Your task to perform on an android device: open app "Viber Messenger" Image 0: 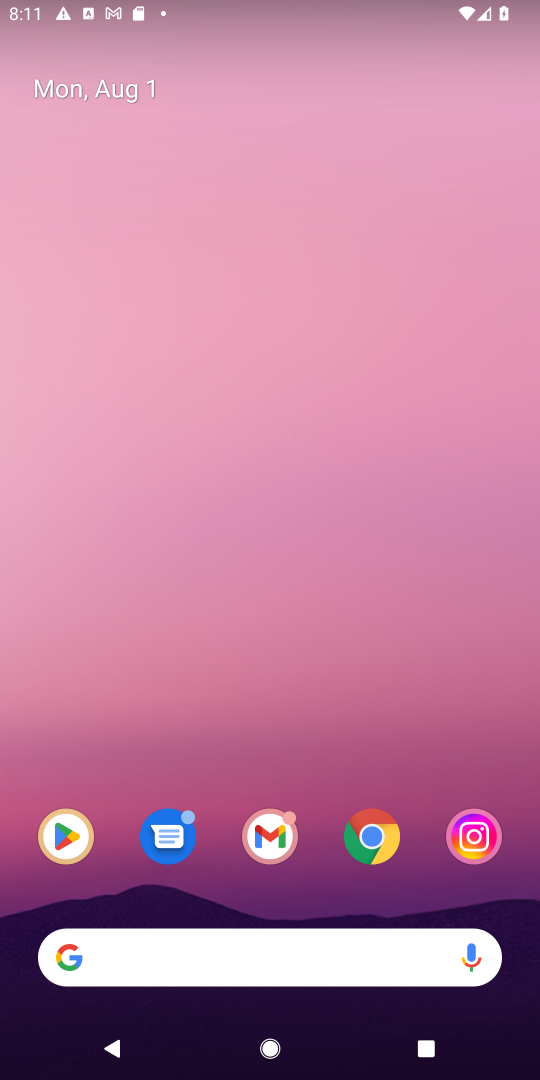
Step 0: press home button
Your task to perform on an android device: open app "Viber Messenger" Image 1: 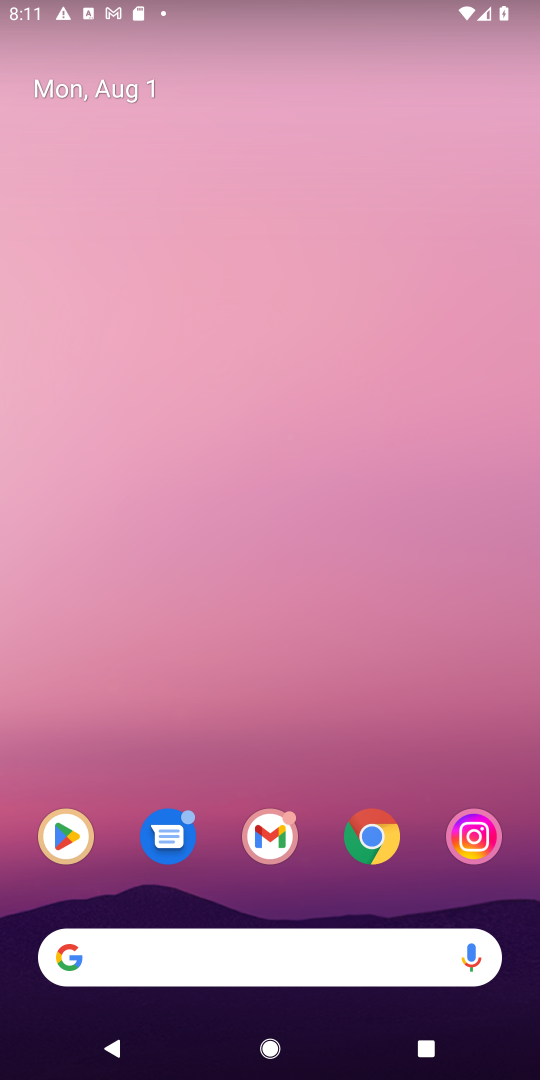
Step 1: click (61, 838)
Your task to perform on an android device: open app "Viber Messenger" Image 2: 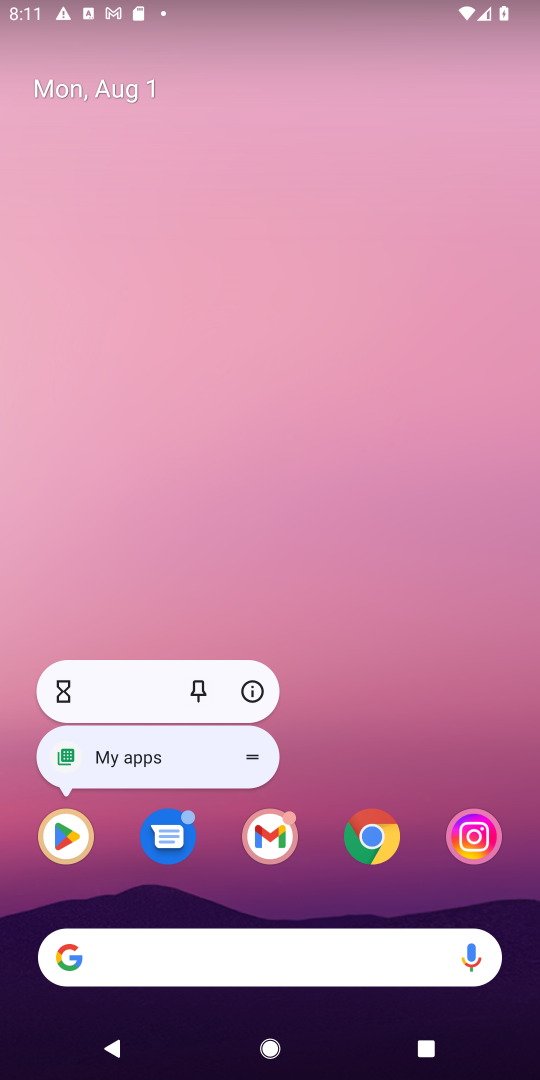
Step 2: click (62, 841)
Your task to perform on an android device: open app "Viber Messenger" Image 3: 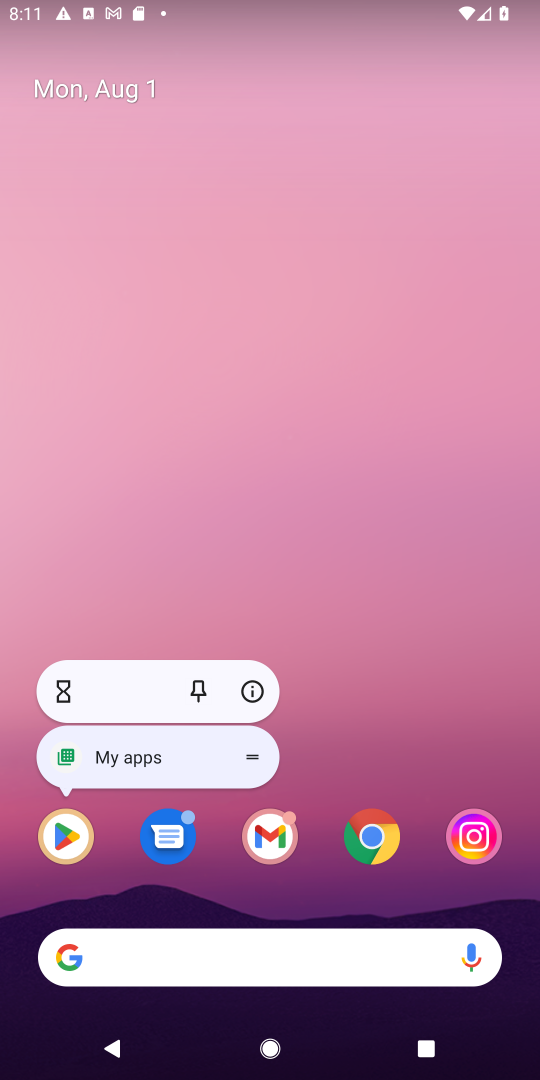
Step 3: click (62, 841)
Your task to perform on an android device: open app "Viber Messenger" Image 4: 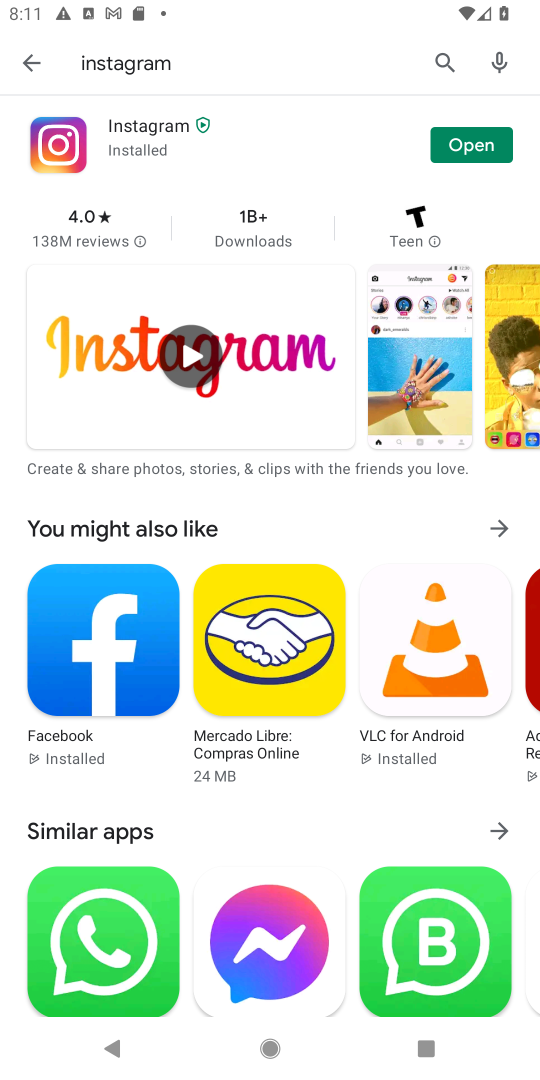
Step 4: click (440, 56)
Your task to perform on an android device: open app "Viber Messenger" Image 5: 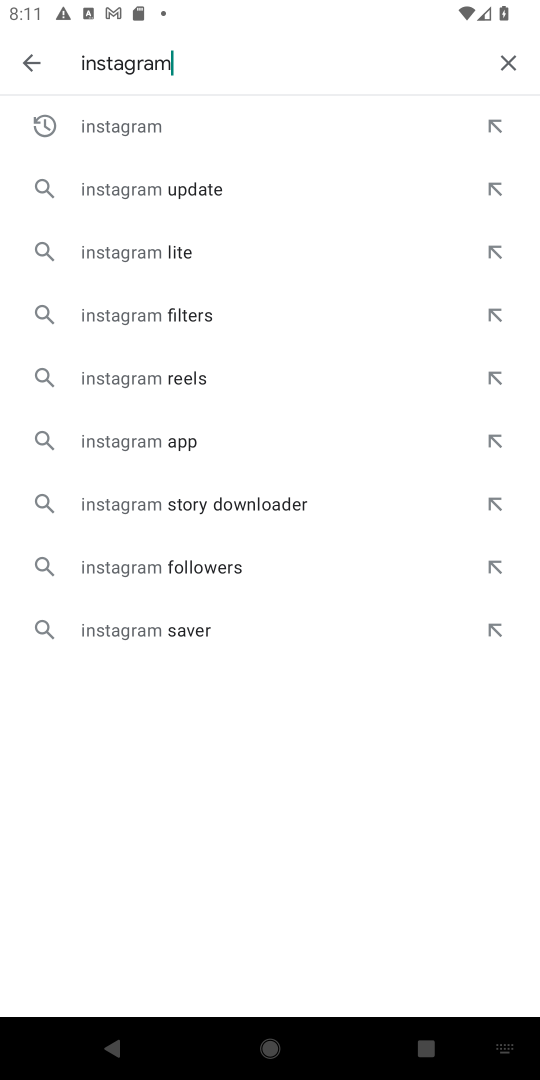
Step 5: click (505, 55)
Your task to perform on an android device: open app "Viber Messenger" Image 6: 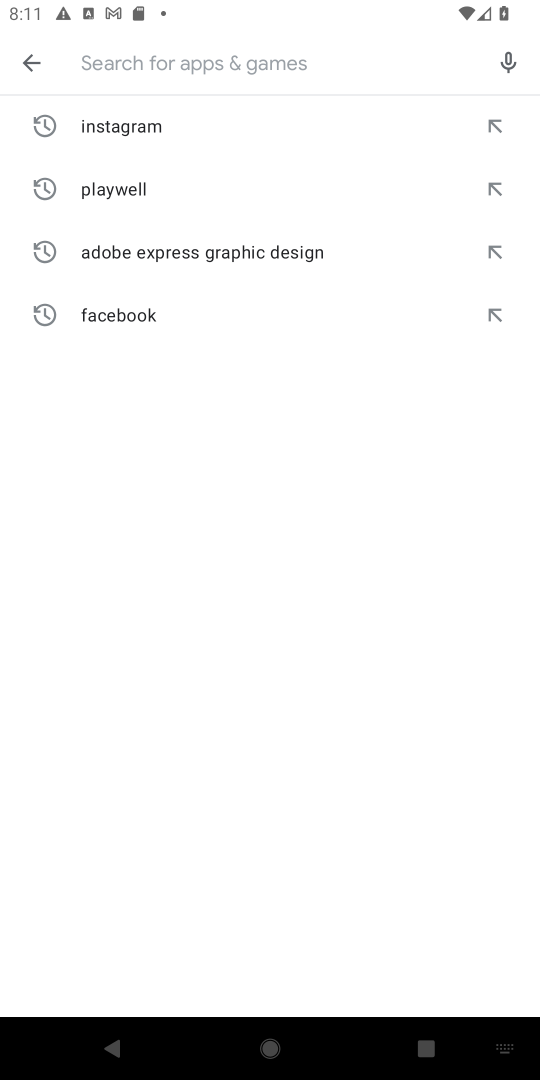
Step 6: type "Viber Messenger"
Your task to perform on an android device: open app "Viber Messenger" Image 7: 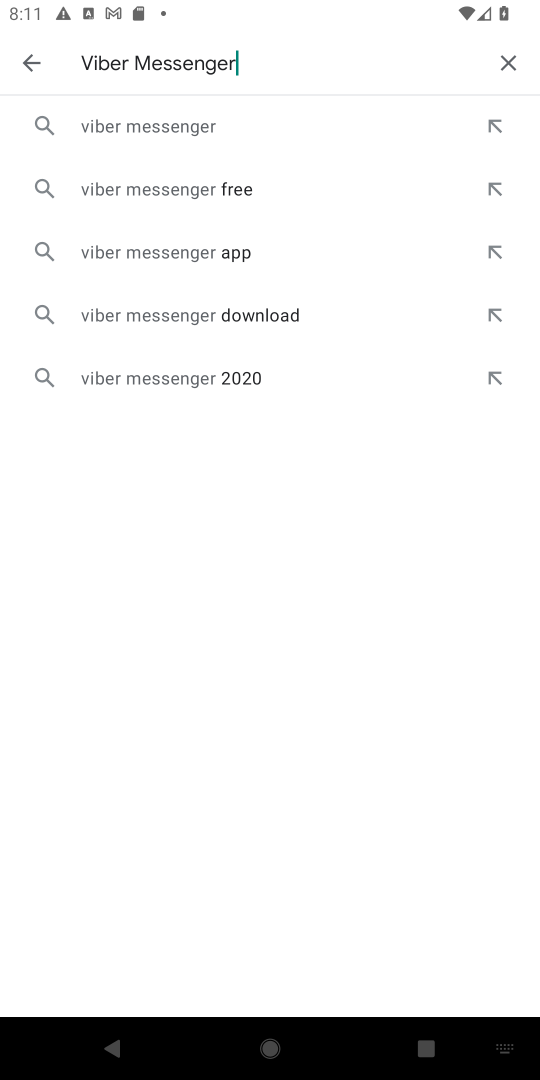
Step 7: click (142, 125)
Your task to perform on an android device: open app "Viber Messenger" Image 8: 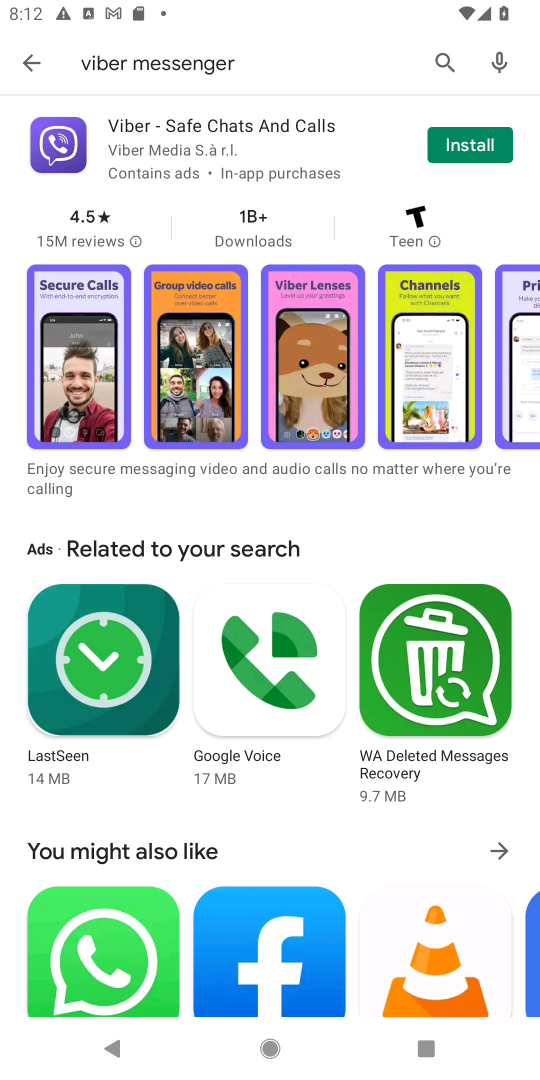
Step 8: task complete